Your task to perform on an android device: turn notification dots off Image 0: 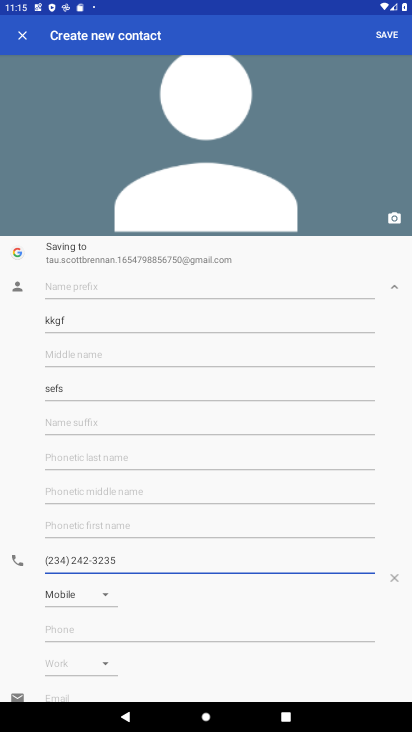
Step 0: press home button
Your task to perform on an android device: turn notification dots off Image 1: 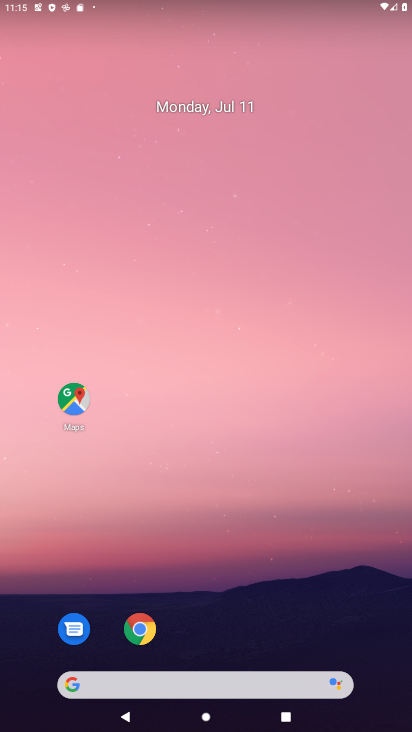
Step 1: drag from (239, 613) to (212, 156)
Your task to perform on an android device: turn notification dots off Image 2: 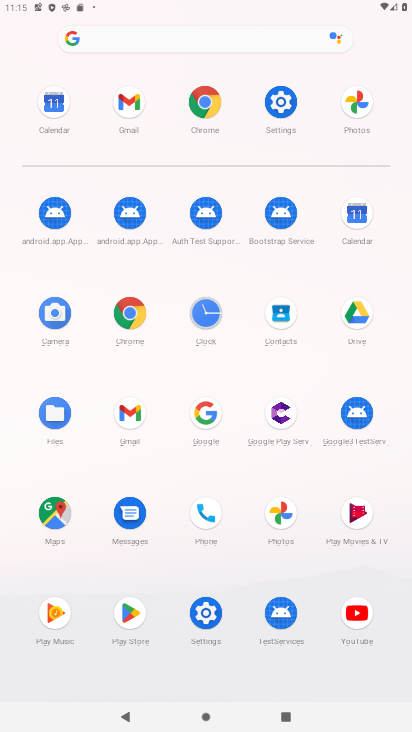
Step 2: click (262, 128)
Your task to perform on an android device: turn notification dots off Image 3: 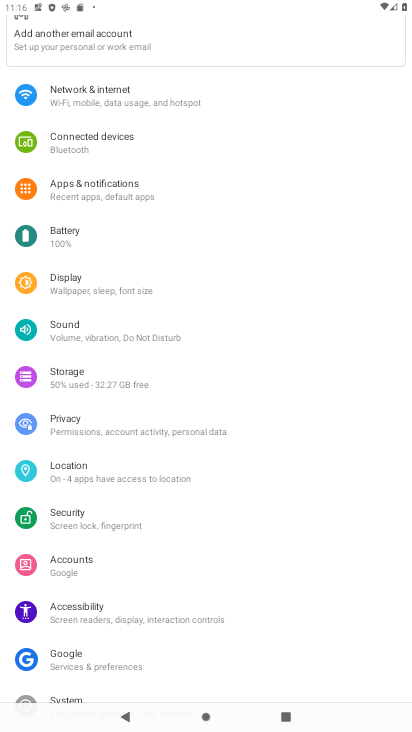
Step 3: drag from (150, 638) to (161, 358)
Your task to perform on an android device: turn notification dots off Image 4: 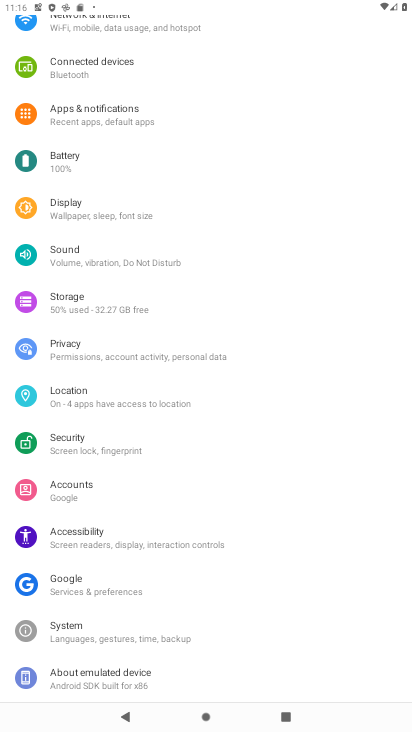
Step 4: click (100, 124)
Your task to perform on an android device: turn notification dots off Image 5: 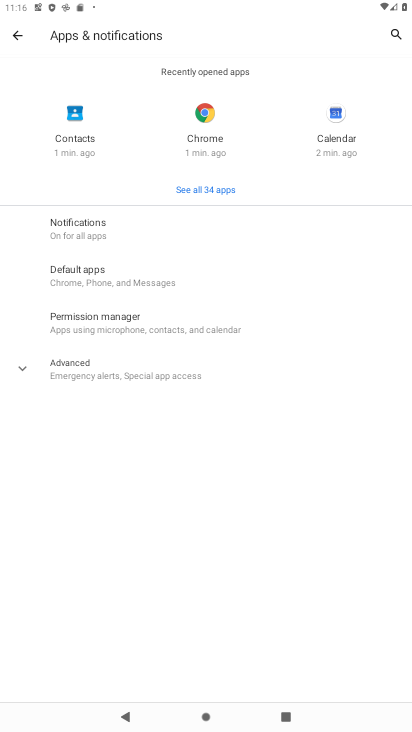
Step 5: click (60, 367)
Your task to perform on an android device: turn notification dots off Image 6: 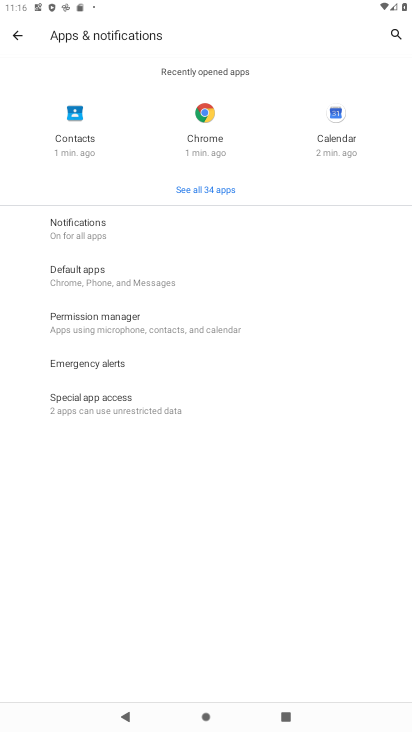
Step 6: click (183, 235)
Your task to perform on an android device: turn notification dots off Image 7: 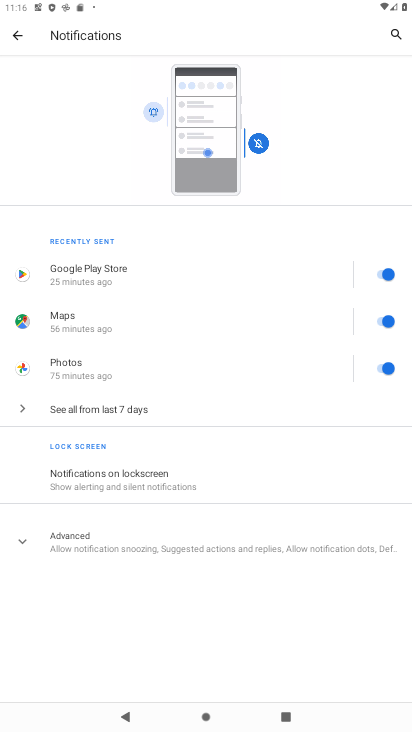
Step 7: click (346, 249)
Your task to perform on an android device: turn notification dots off Image 8: 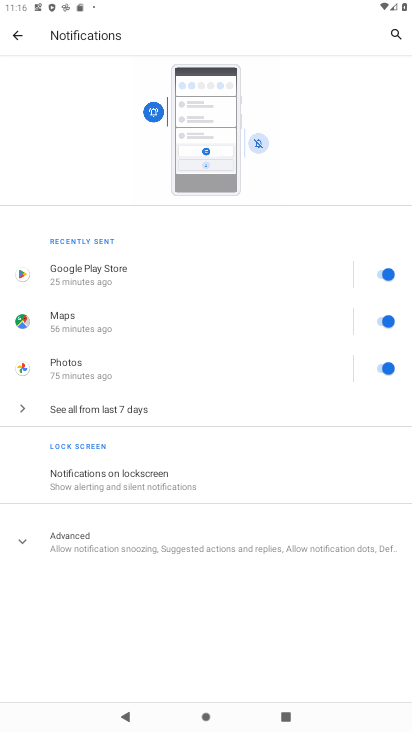
Step 8: task complete